Your task to perform on an android device: refresh tabs in the chrome app Image 0: 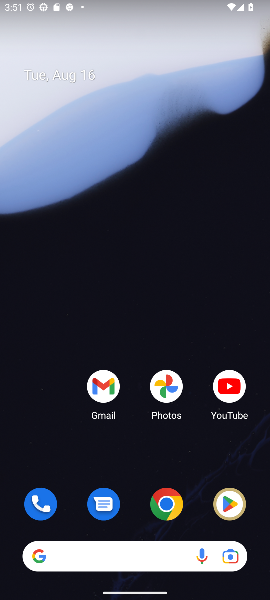
Step 0: click (167, 509)
Your task to perform on an android device: refresh tabs in the chrome app Image 1: 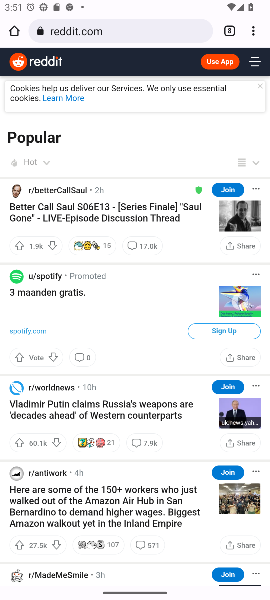
Step 1: click (257, 27)
Your task to perform on an android device: refresh tabs in the chrome app Image 2: 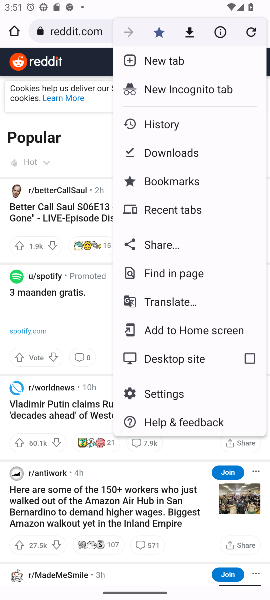
Step 2: click (248, 33)
Your task to perform on an android device: refresh tabs in the chrome app Image 3: 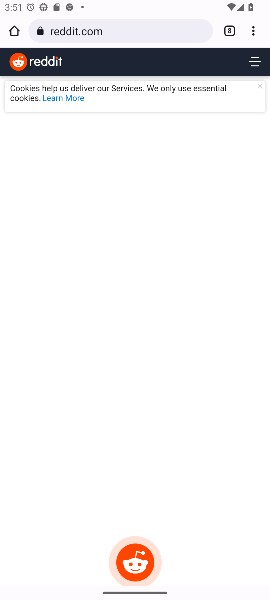
Step 3: task complete